Your task to perform on an android device: install app "YouTube Kids" Image 0: 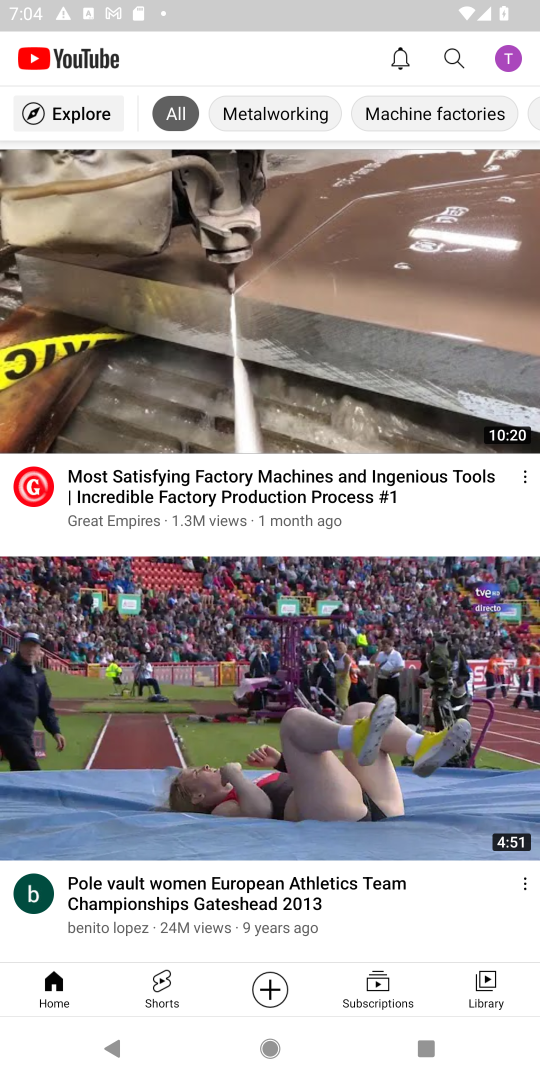
Step 0: press home button
Your task to perform on an android device: install app "YouTube Kids" Image 1: 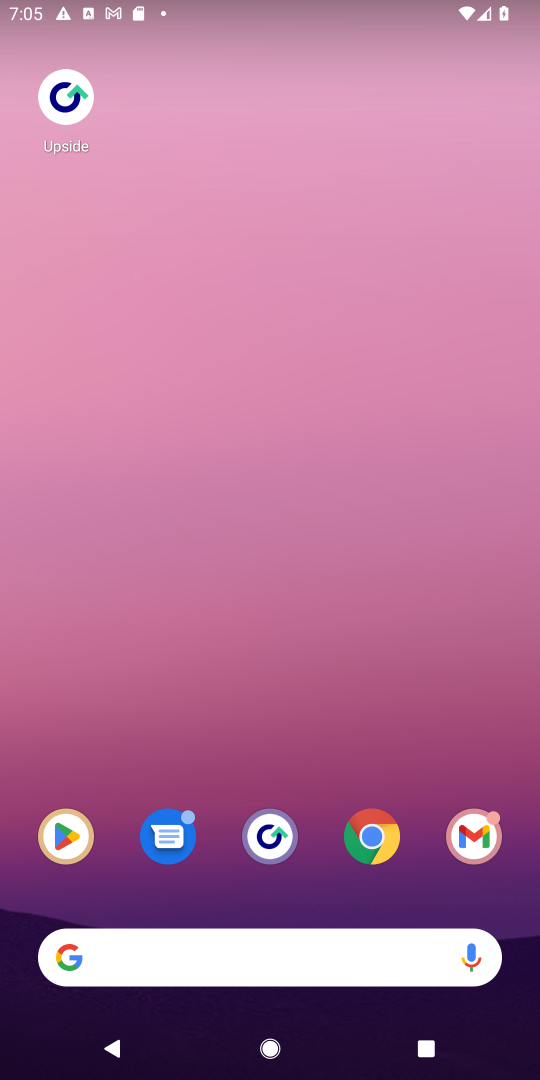
Step 1: click (77, 839)
Your task to perform on an android device: install app "YouTube Kids" Image 2: 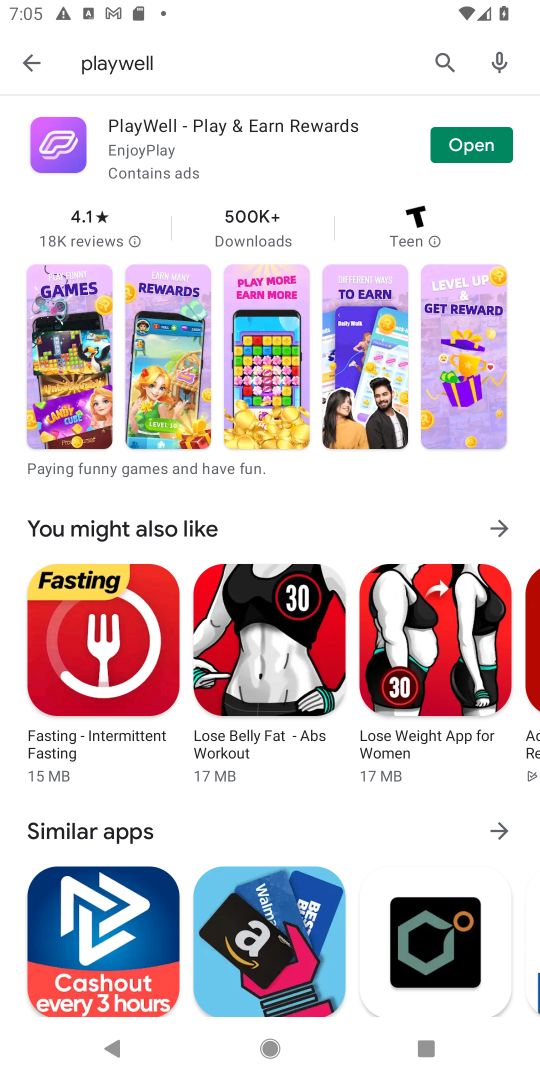
Step 2: click (438, 50)
Your task to perform on an android device: install app "YouTube Kids" Image 3: 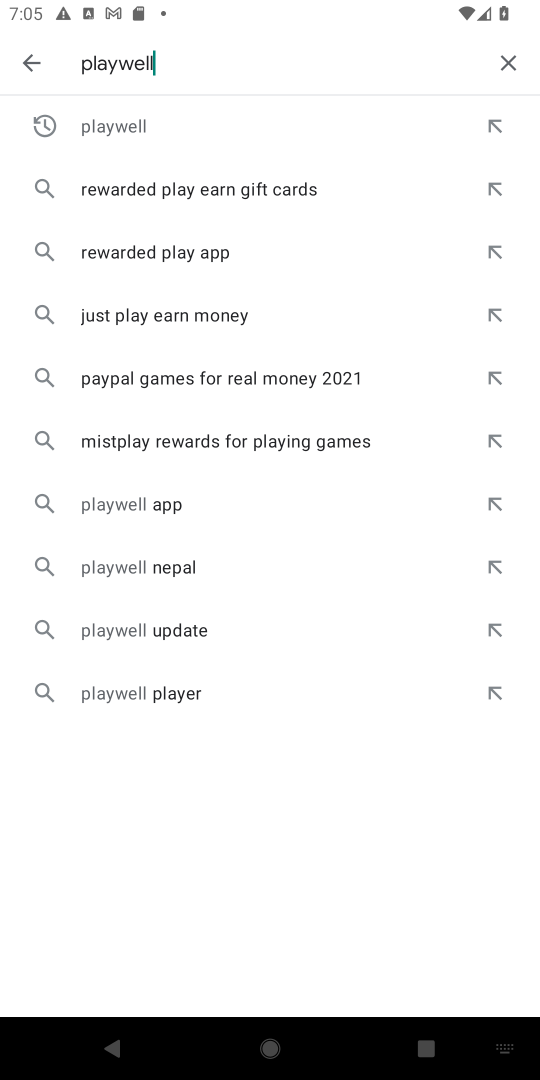
Step 3: click (508, 67)
Your task to perform on an android device: install app "YouTube Kids" Image 4: 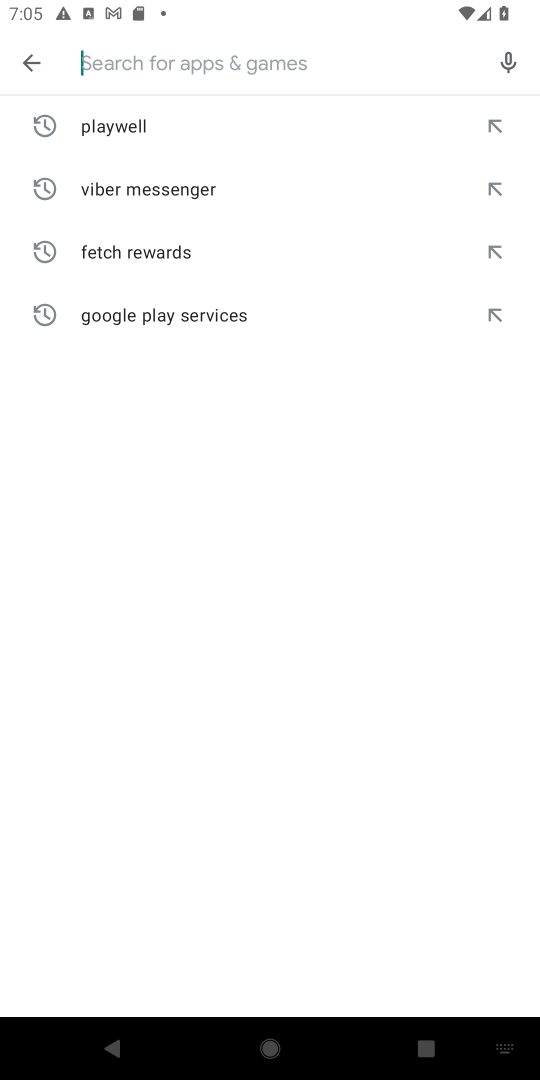
Step 4: type "YouTube Kids"
Your task to perform on an android device: install app "YouTube Kids" Image 5: 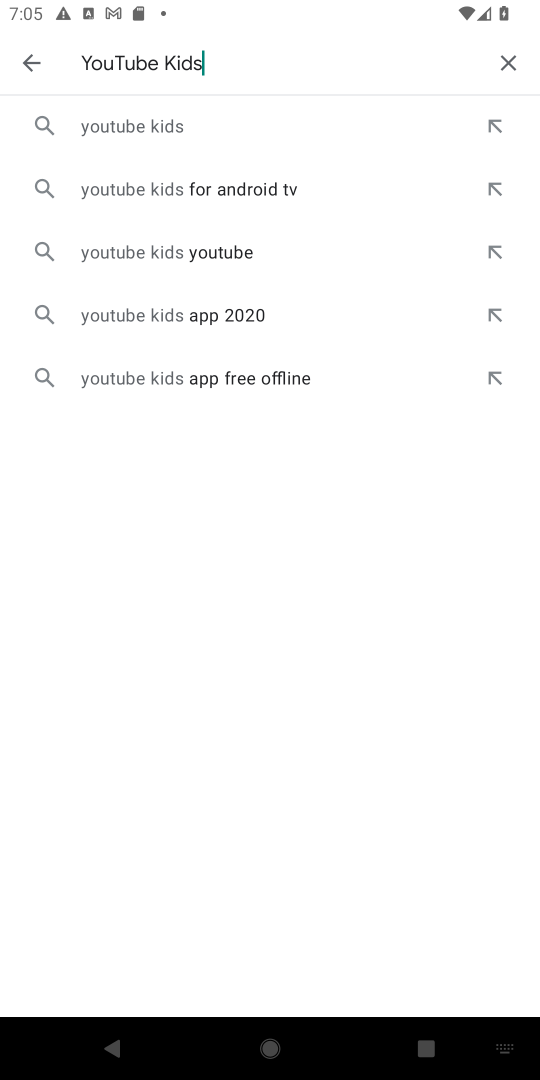
Step 5: click (172, 125)
Your task to perform on an android device: install app "YouTube Kids" Image 6: 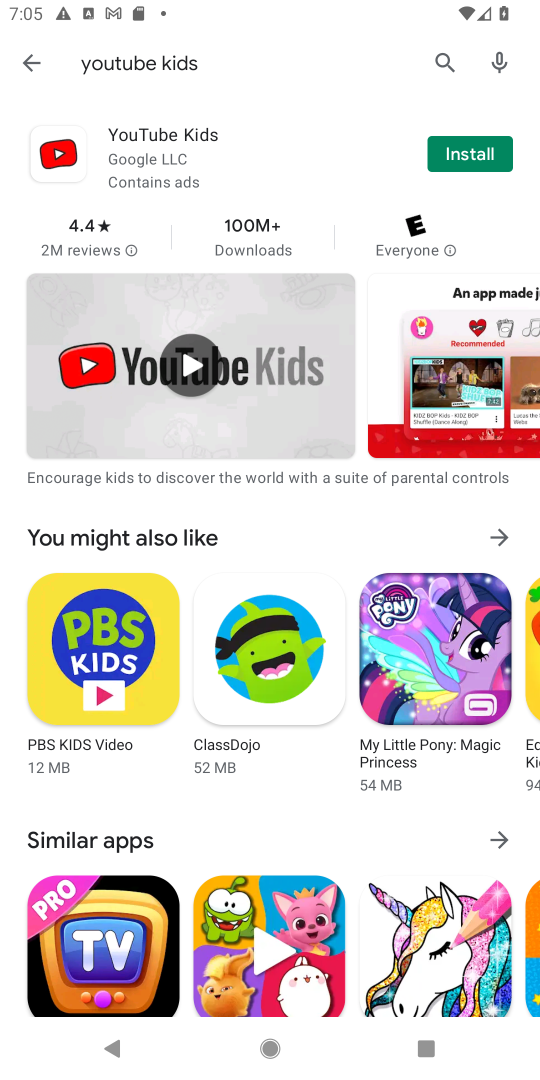
Step 6: click (492, 157)
Your task to perform on an android device: install app "YouTube Kids" Image 7: 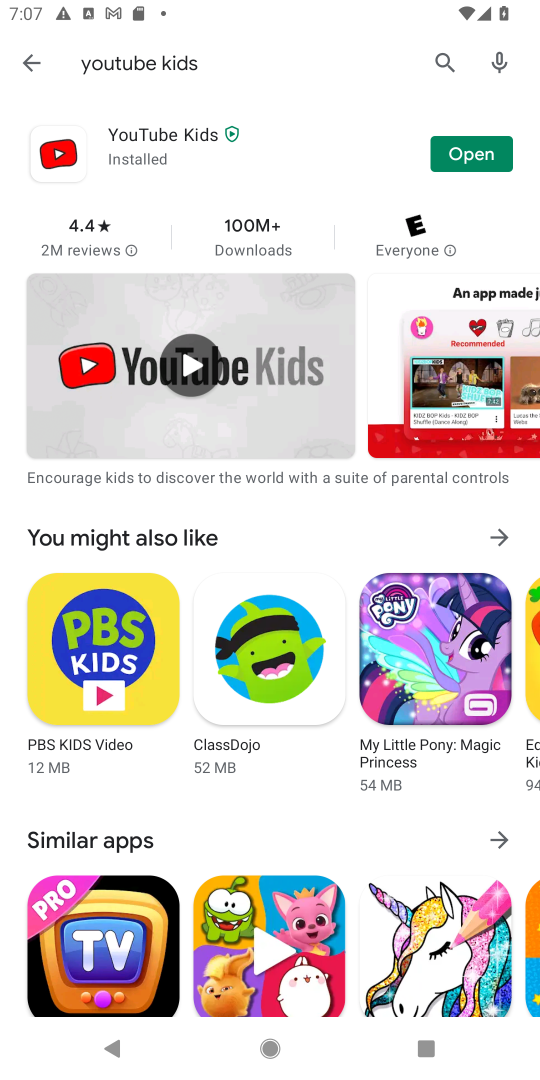
Step 7: task complete